Your task to perform on an android device: Show me popular videos on Youtube Image 0: 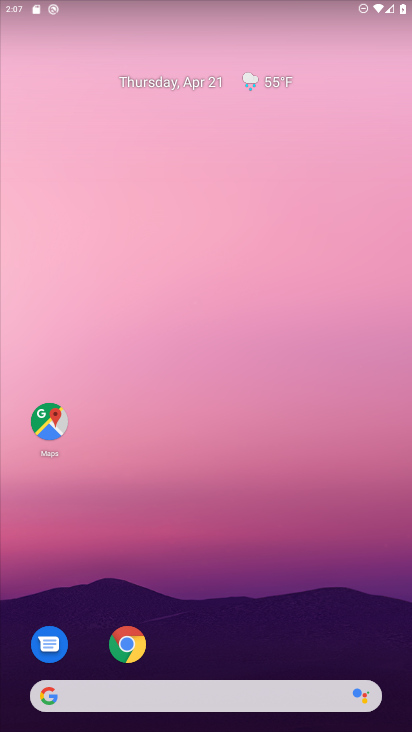
Step 0: drag from (224, 642) to (183, 144)
Your task to perform on an android device: Show me popular videos on Youtube Image 1: 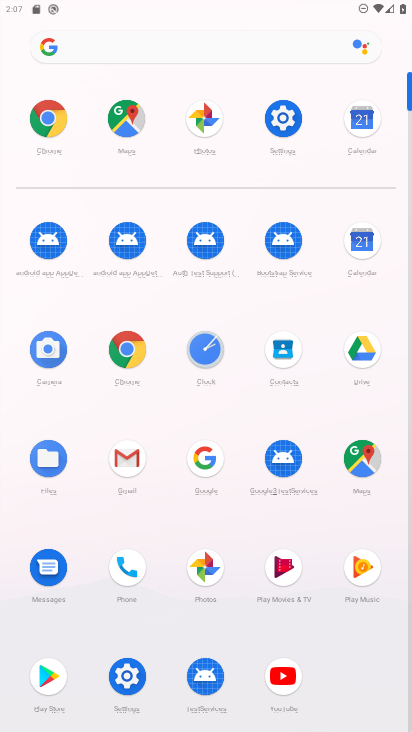
Step 1: click (280, 675)
Your task to perform on an android device: Show me popular videos on Youtube Image 2: 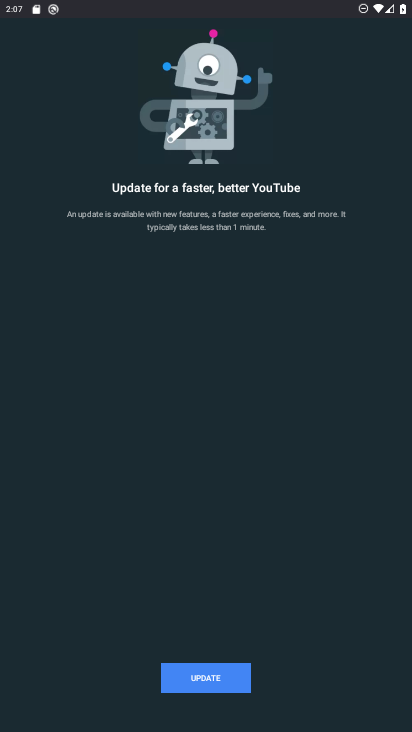
Step 2: click (209, 675)
Your task to perform on an android device: Show me popular videos on Youtube Image 3: 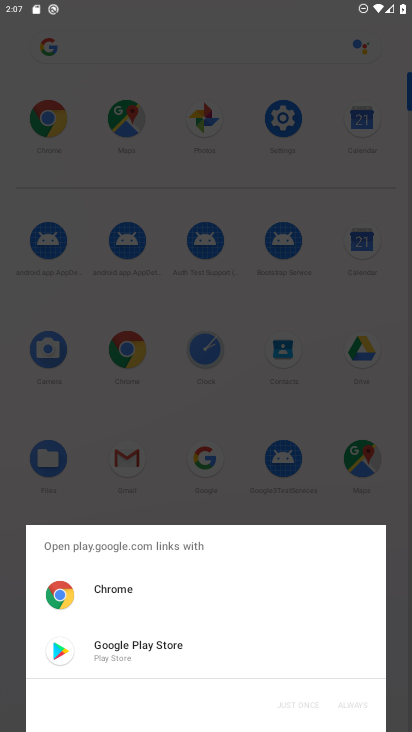
Step 3: click (216, 666)
Your task to perform on an android device: Show me popular videos on Youtube Image 4: 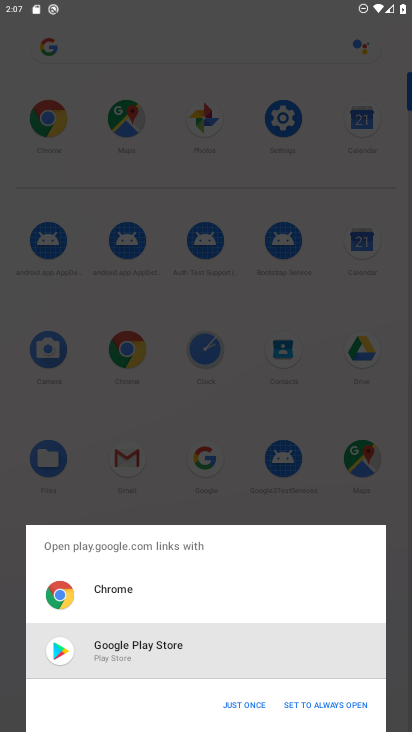
Step 4: click (232, 709)
Your task to perform on an android device: Show me popular videos on Youtube Image 5: 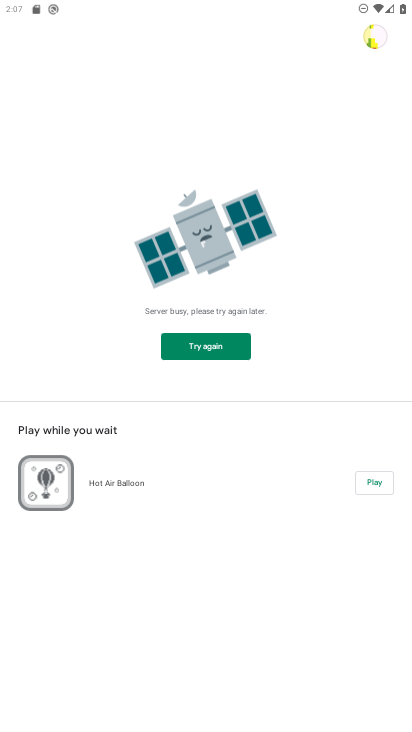
Step 5: task complete